Your task to perform on an android device: What's the news in Jamaica? Image 0: 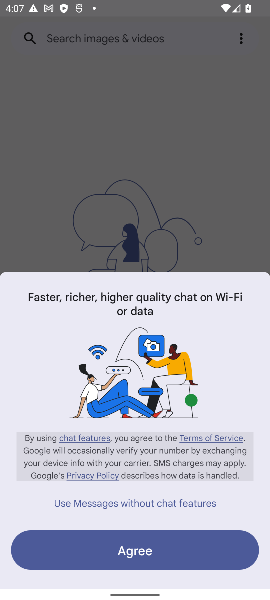
Step 0: press home button
Your task to perform on an android device: What's the news in Jamaica? Image 1: 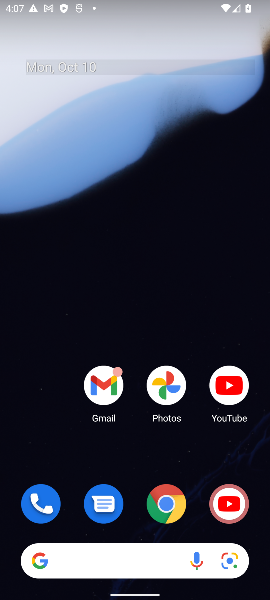
Step 1: drag from (143, 418) to (159, 207)
Your task to perform on an android device: What's the news in Jamaica? Image 2: 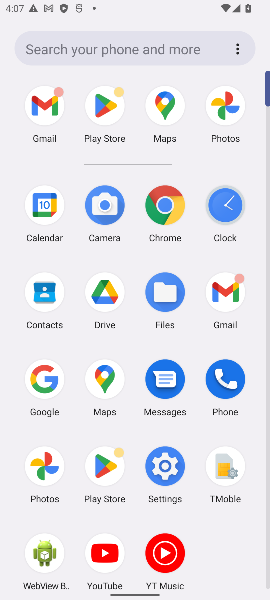
Step 2: click (166, 208)
Your task to perform on an android device: What's the news in Jamaica? Image 3: 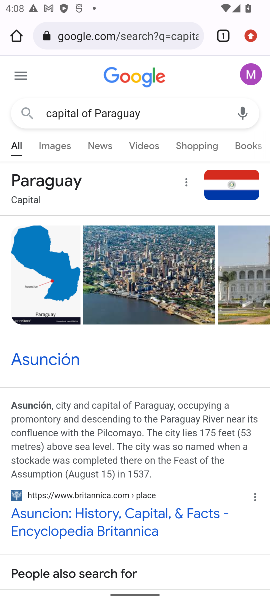
Step 3: click (175, 116)
Your task to perform on an android device: What's the news in Jamaica? Image 4: 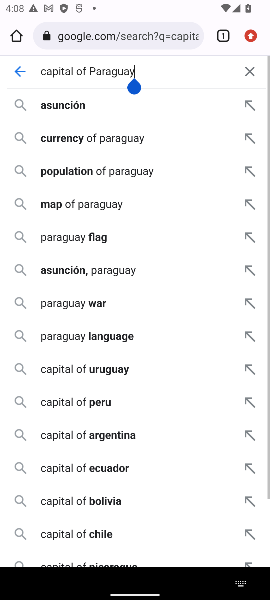
Step 4: click (177, 29)
Your task to perform on an android device: What's the news in Jamaica? Image 5: 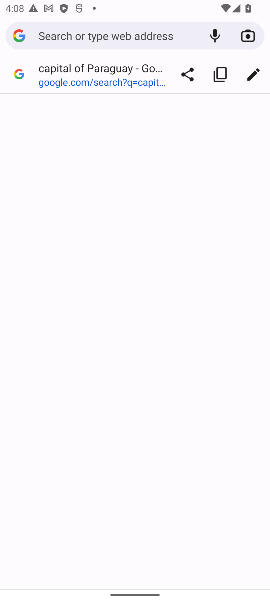
Step 5: type "What's the news in Jamaica?"
Your task to perform on an android device: What's the news in Jamaica? Image 6: 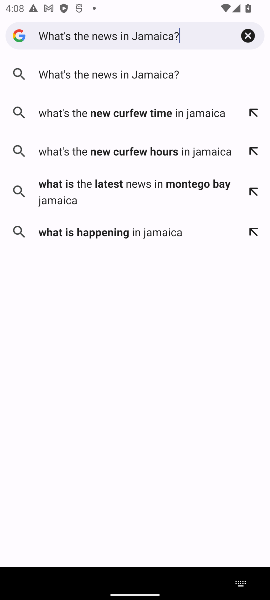
Step 6: press enter
Your task to perform on an android device: What's the news in Jamaica? Image 7: 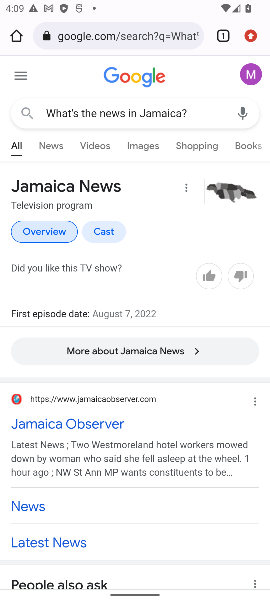
Step 7: task complete